Your task to perform on an android device: What's the weather? Image 0: 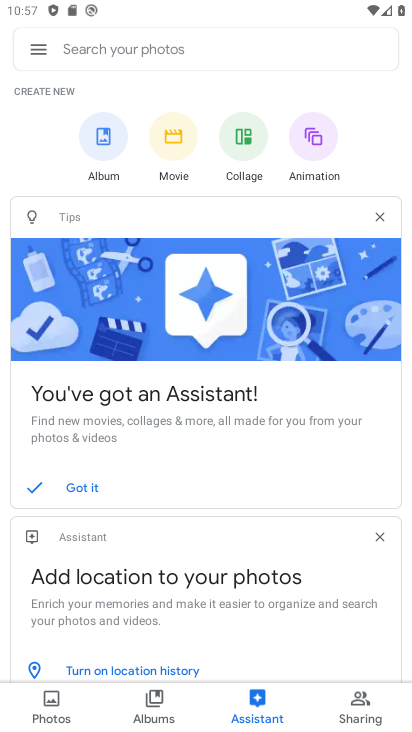
Step 0: press home button
Your task to perform on an android device: What's the weather? Image 1: 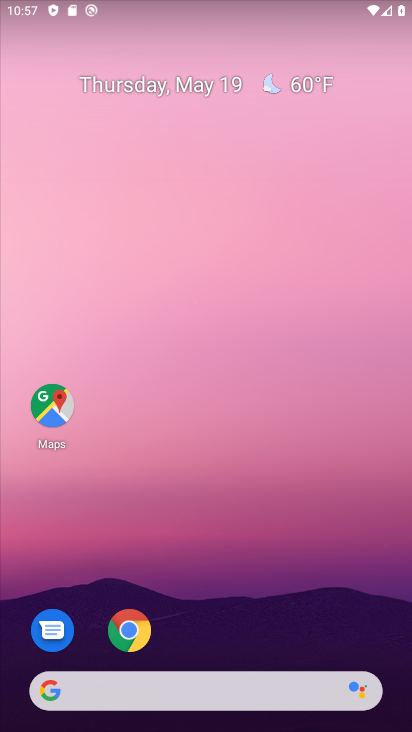
Step 1: click (144, 639)
Your task to perform on an android device: What's the weather? Image 2: 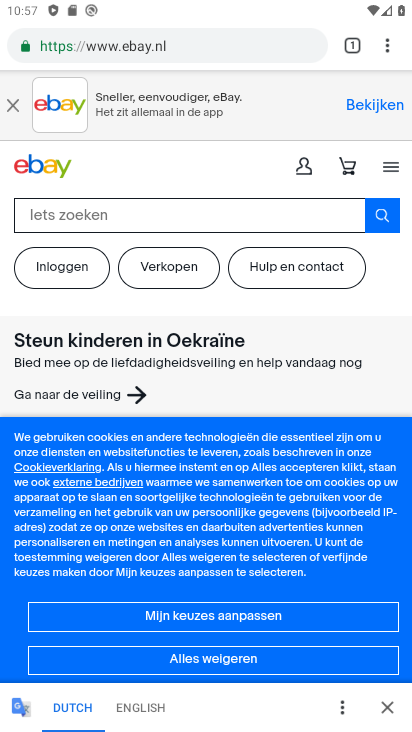
Step 2: click (192, 46)
Your task to perform on an android device: What's the weather? Image 3: 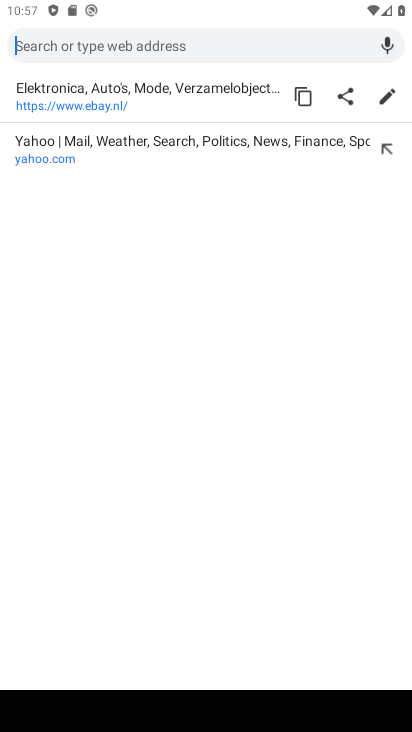
Step 3: type "weather"
Your task to perform on an android device: What's the weather? Image 4: 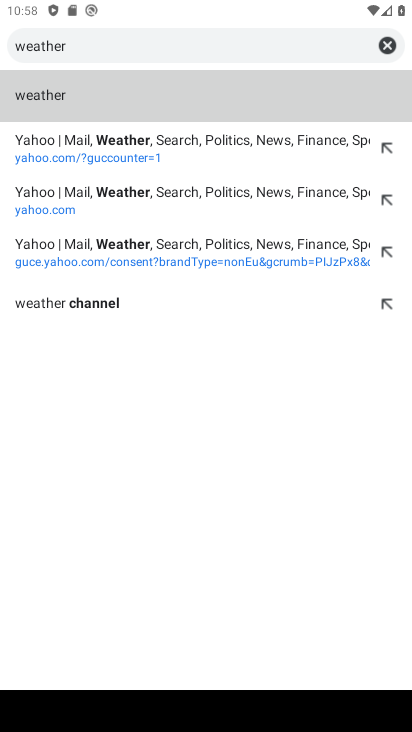
Step 4: click (52, 94)
Your task to perform on an android device: What's the weather? Image 5: 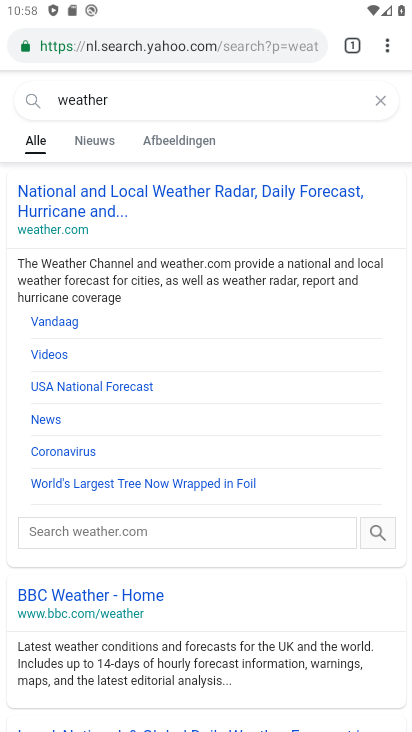
Step 5: click (94, 595)
Your task to perform on an android device: What's the weather? Image 6: 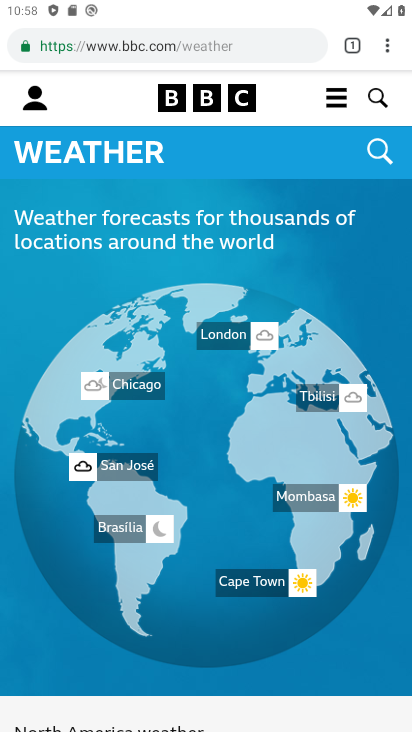
Step 6: task complete